Your task to perform on an android device: change the clock style Image 0: 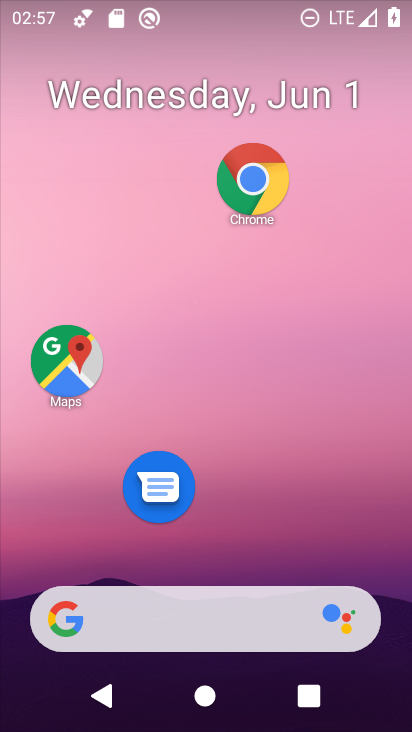
Step 0: drag from (235, 529) to (236, 285)
Your task to perform on an android device: change the clock style Image 1: 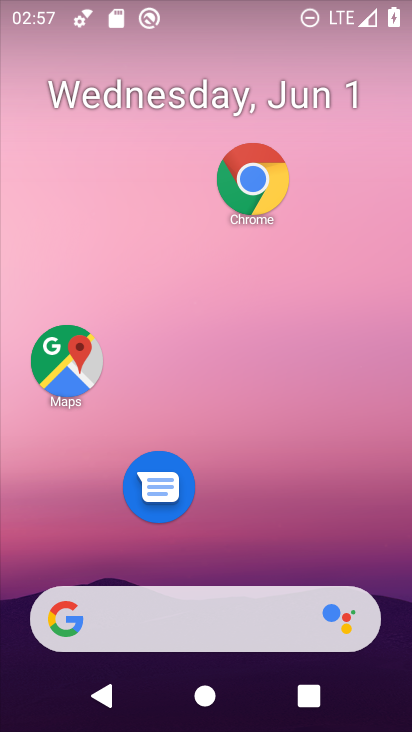
Step 1: drag from (287, 561) to (310, 230)
Your task to perform on an android device: change the clock style Image 2: 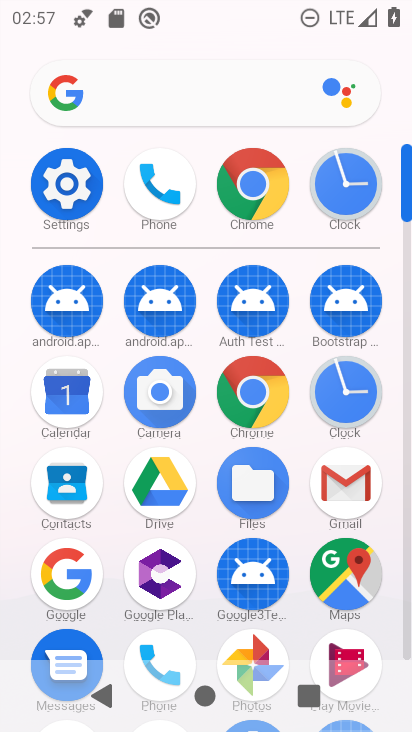
Step 2: click (334, 369)
Your task to perform on an android device: change the clock style Image 3: 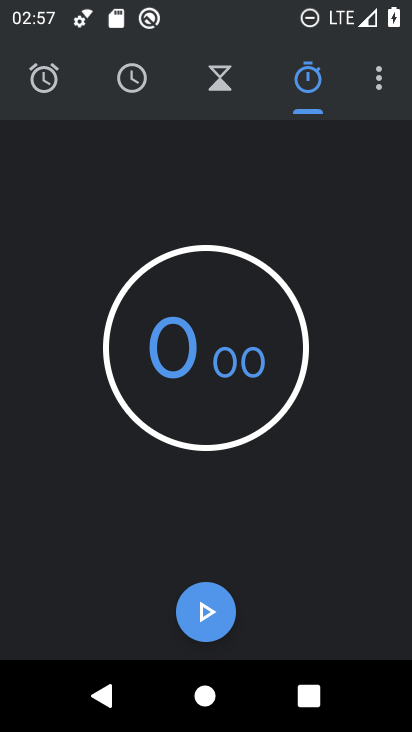
Step 3: click (378, 86)
Your task to perform on an android device: change the clock style Image 4: 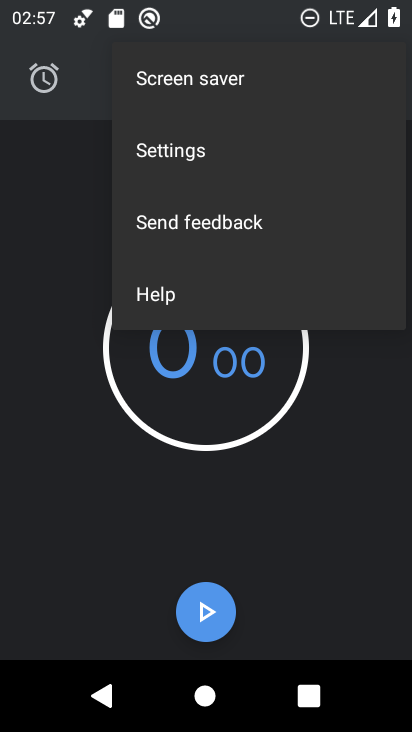
Step 4: click (173, 159)
Your task to perform on an android device: change the clock style Image 5: 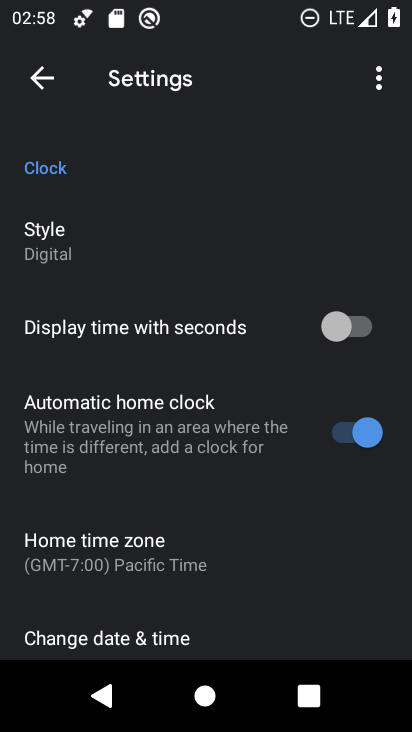
Step 5: task complete